Your task to perform on an android device: Go to Google maps Image 0: 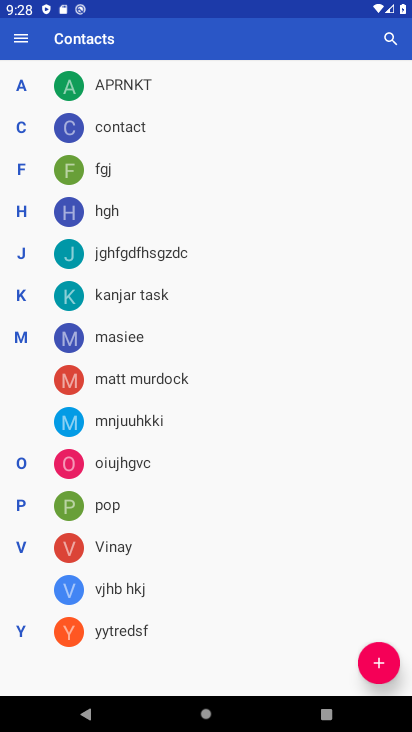
Step 0: press back button
Your task to perform on an android device: Go to Google maps Image 1: 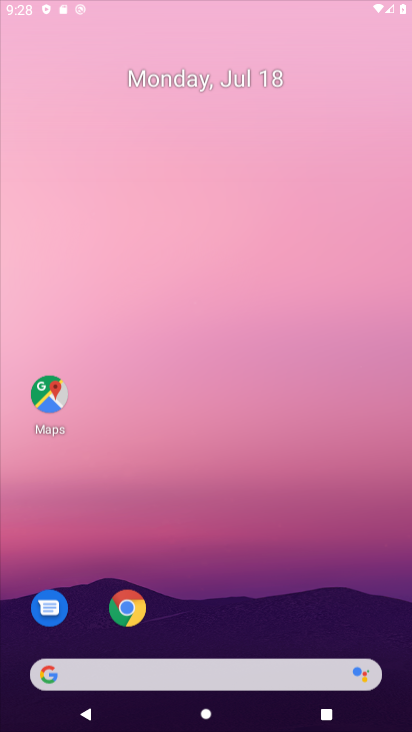
Step 1: press home button
Your task to perform on an android device: Go to Google maps Image 2: 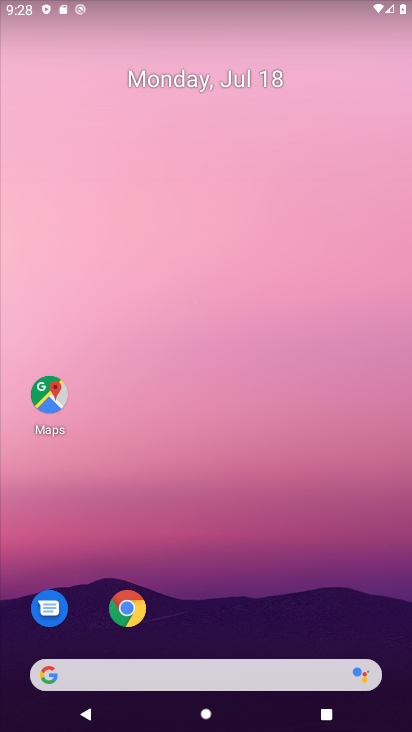
Step 2: drag from (248, 669) to (210, 208)
Your task to perform on an android device: Go to Google maps Image 3: 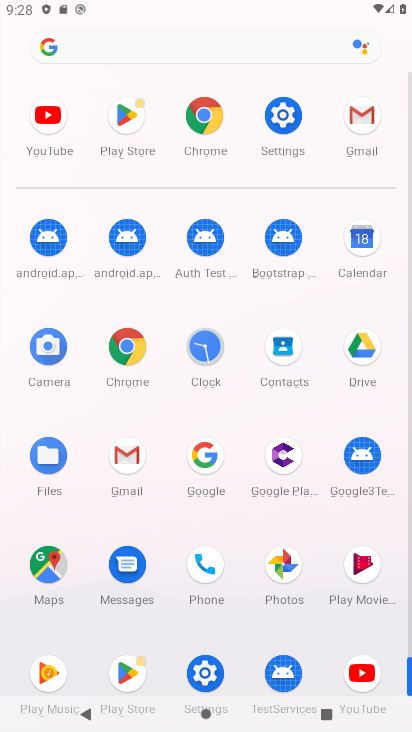
Step 3: click (35, 562)
Your task to perform on an android device: Go to Google maps Image 4: 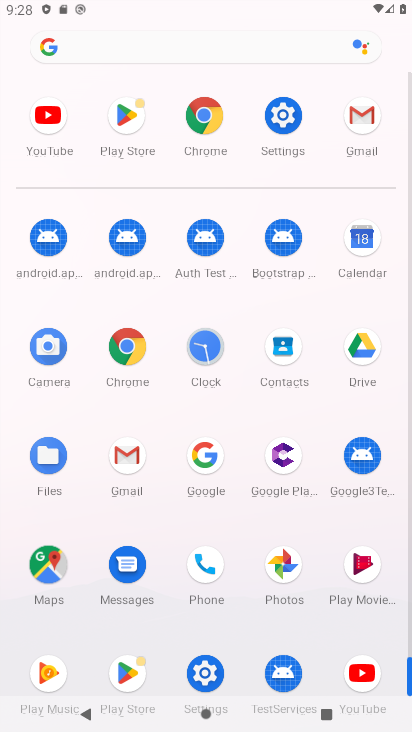
Step 4: click (46, 559)
Your task to perform on an android device: Go to Google maps Image 5: 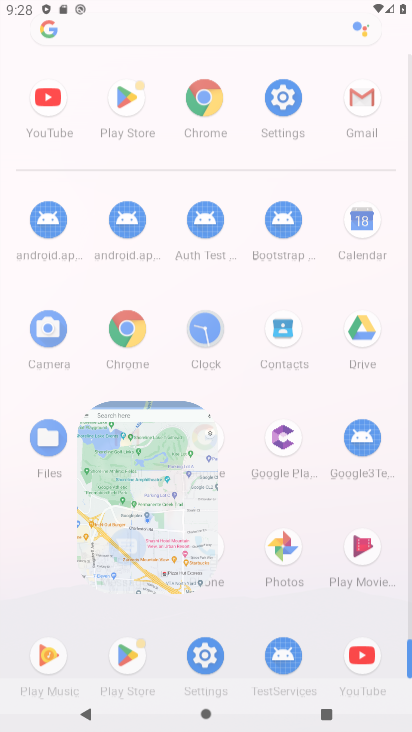
Step 5: click (48, 558)
Your task to perform on an android device: Go to Google maps Image 6: 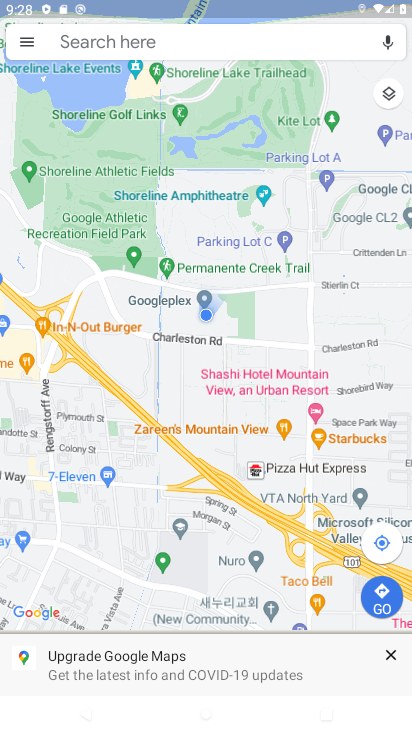
Step 6: click (23, 45)
Your task to perform on an android device: Go to Google maps Image 7: 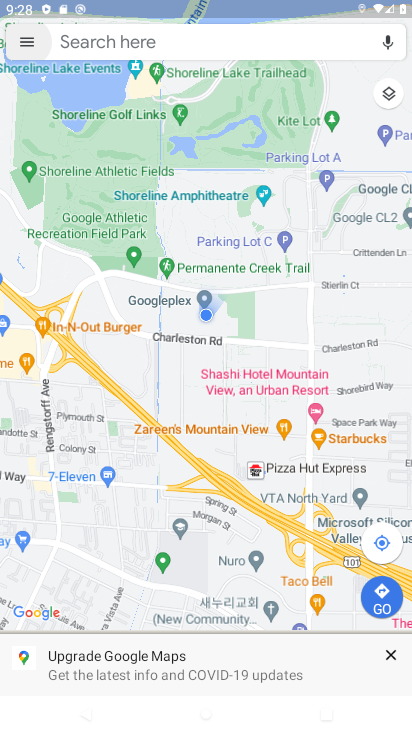
Step 7: click (30, 38)
Your task to perform on an android device: Go to Google maps Image 8: 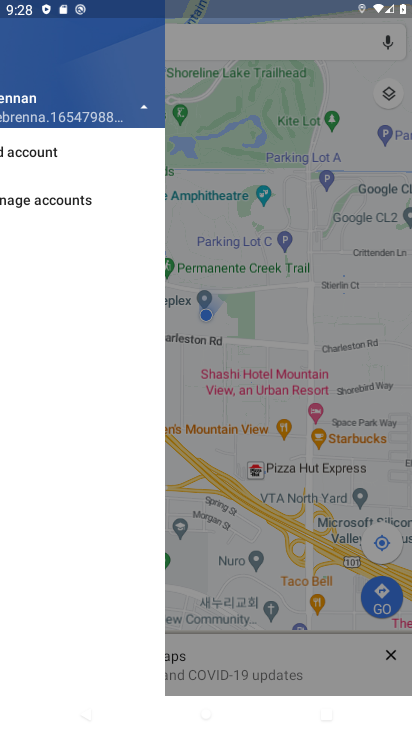
Step 8: click (30, 38)
Your task to perform on an android device: Go to Google maps Image 9: 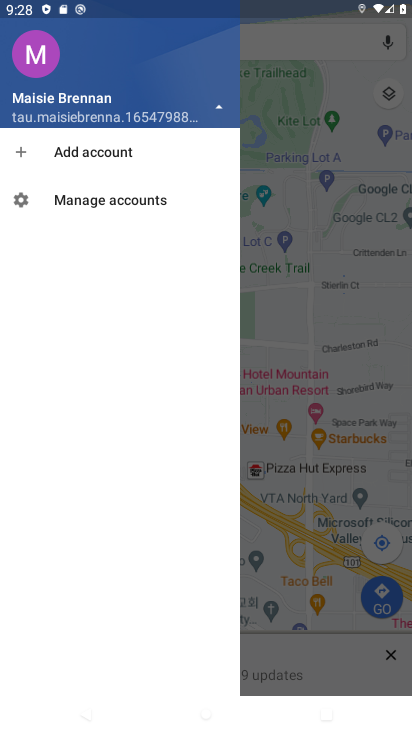
Step 9: drag from (374, 193) to (341, 223)
Your task to perform on an android device: Go to Google maps Image 10: 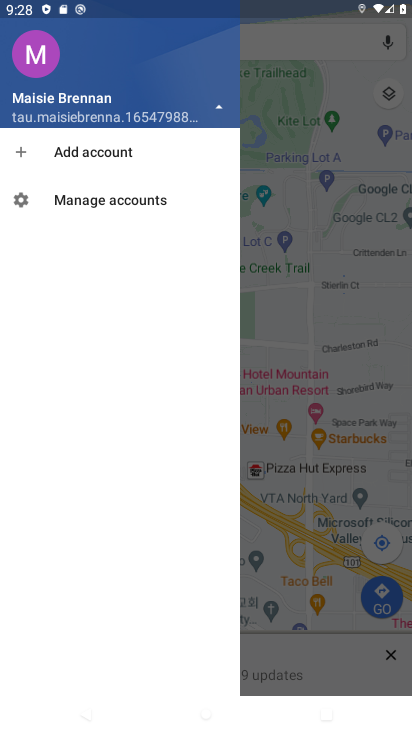
Step 10: click (341, 224)
Your task to perform on an android device: Go to Google maps Image 11: 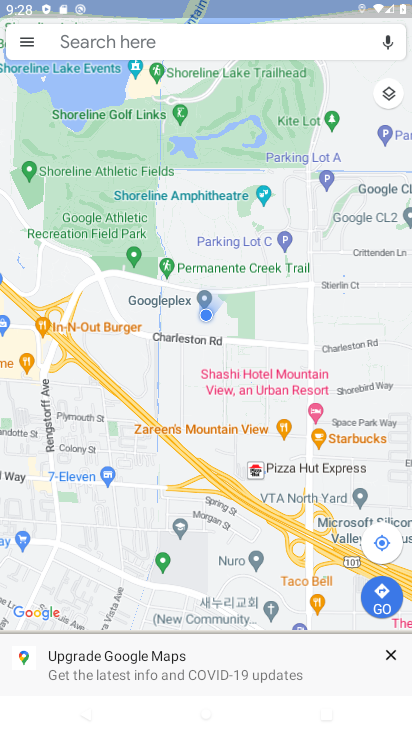
Step 11: task complete